Your task to perform on an android device: Check the news Image 0: 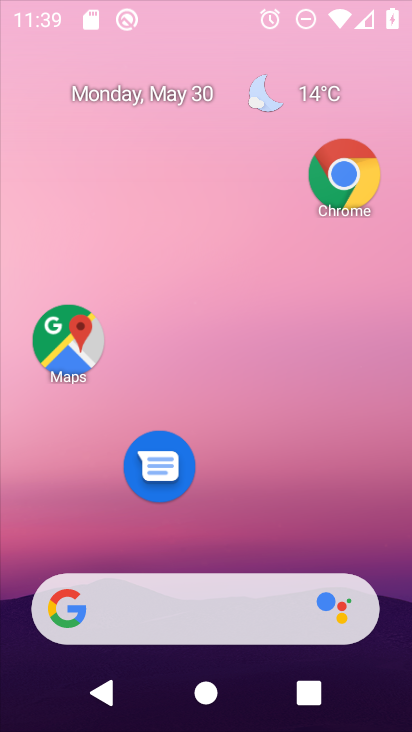
Step 0: click (251, 138)
Your task to perform on an android device: Check the news Image 1: 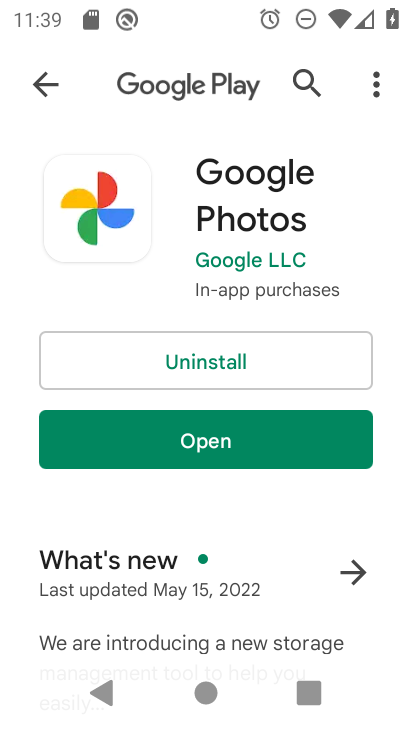
Step 1: press home button
Your task to perform on an android device: Check the news Image 2: 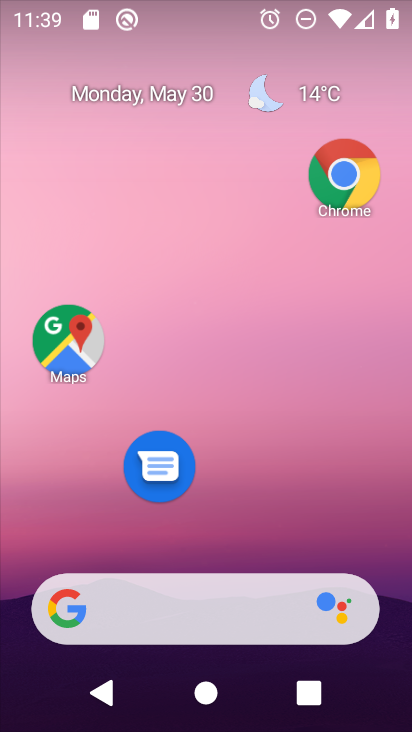
Step 2: click (207, 595)
Your task to perform on an android device: Check the news Image 3: 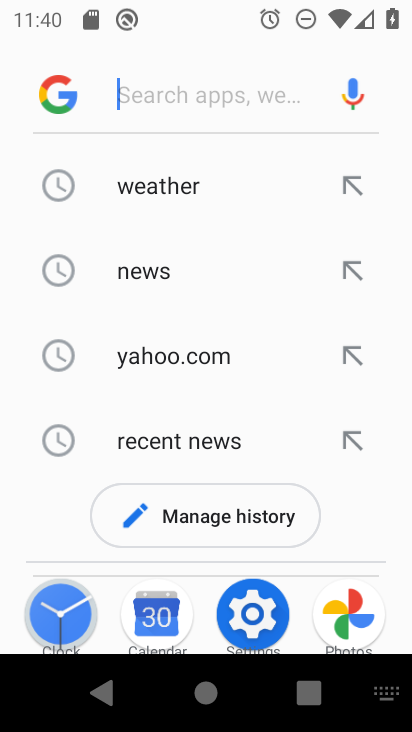
Step 3: click (153, 279)
Your task to perform on an android device: Check the news Image 4: 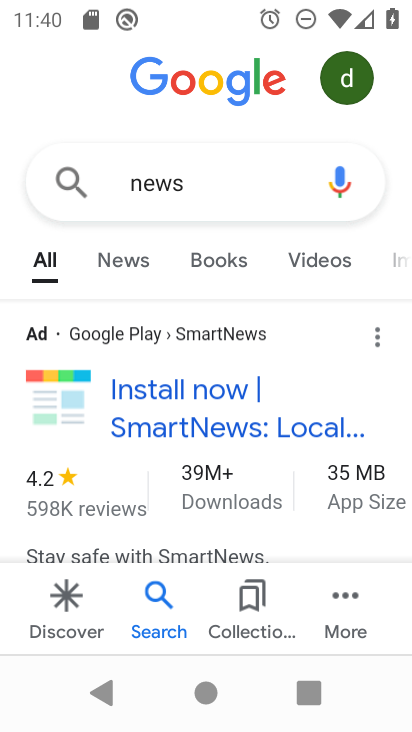
Step 4: drag from (233, 488) to (252, 298)
Your task to perform on an android device: Check the news Image 5: 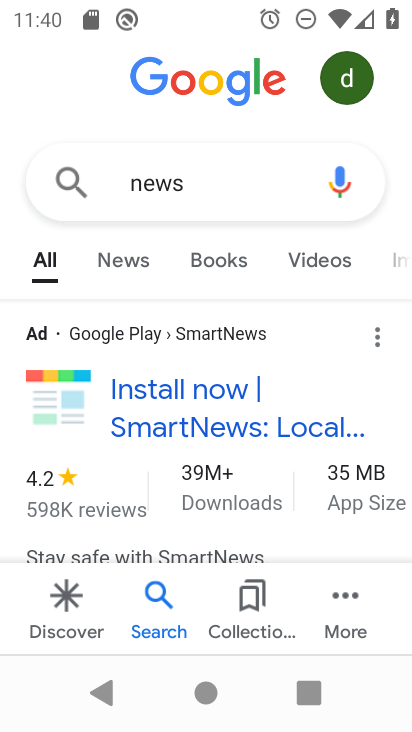
Step 5: click (189, 184)
Your task to perform on an android device: Check the news Image 6: 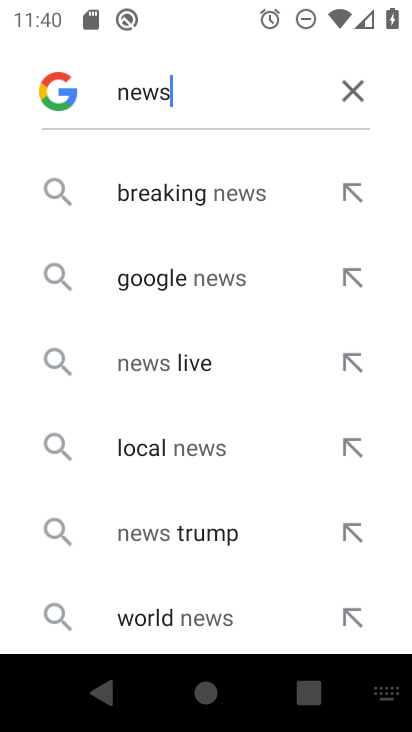
Step 6: click (359, 97)
Your task to perform on an android device: Check the news Image 7: 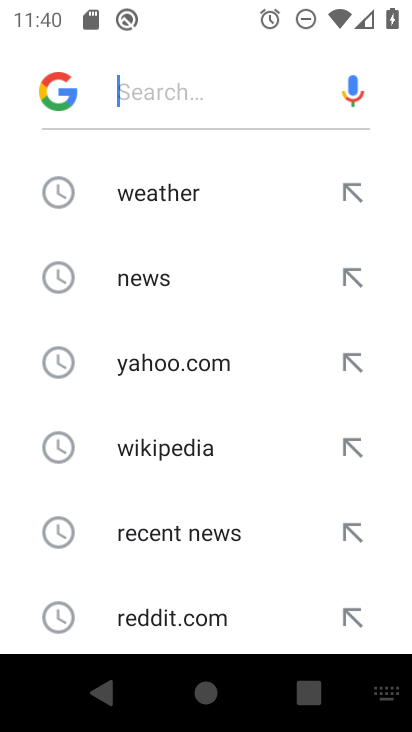
Step 7: drag from (162, 416) to (169, 148)
Your task to perform on an android device: Check the news Image 8: 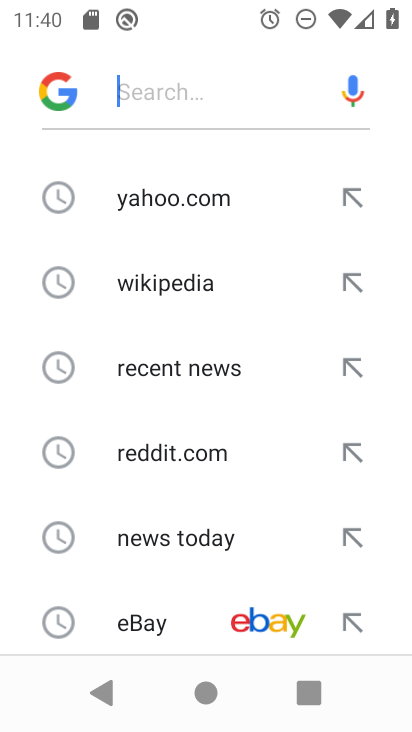
Step 8: type "check the news"
Your task to perform on an android device: Check the news Image 9: 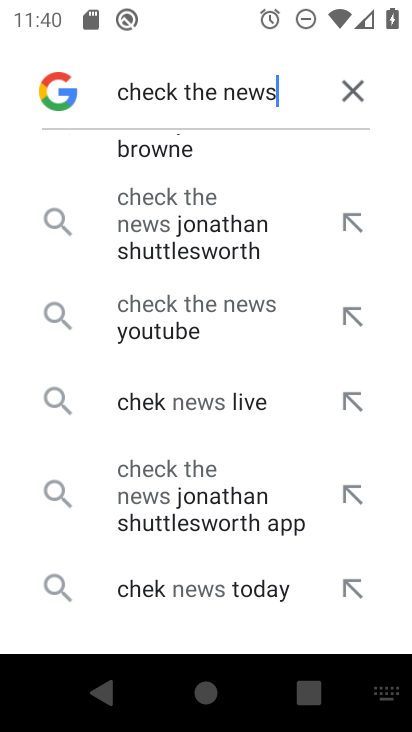
Step 9: drag from (243, 155) to (212, 518)
Your task to perform on an android device: Check the news Image 10: 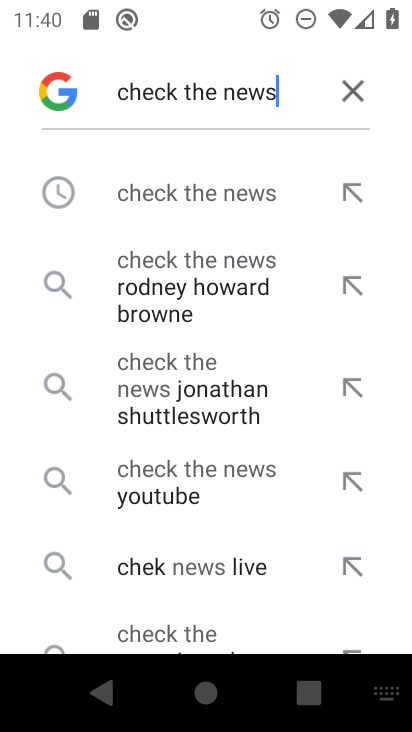
Step 10: click (210, 77)
Your task to perform on an android device: Check the news Image 11: 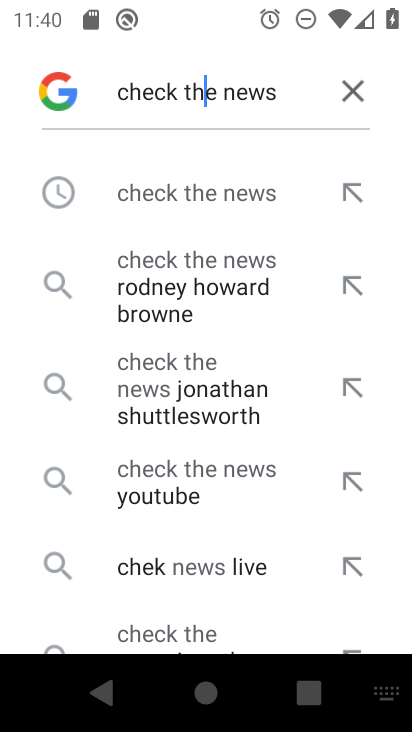
Step 11: click (341, 91)
Your task to perform on an android device: Check the news Image 12: 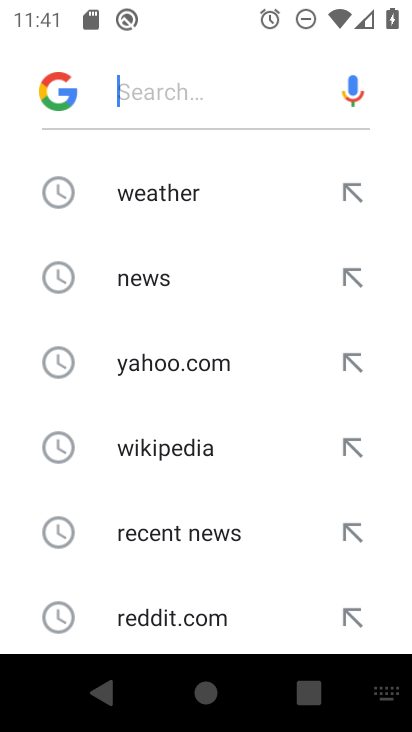
Step 12: click (217, 527)
Your task to perform on an android device: Check the news Image 13: 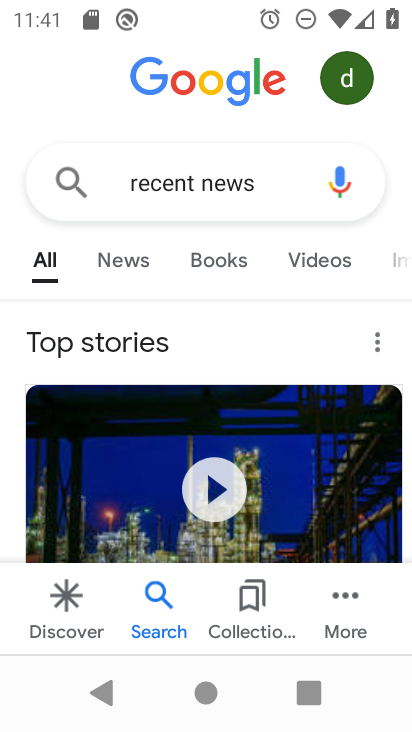
Step 13: task complete